Your task to perform on an android device: toggle sleep mode Image 0: 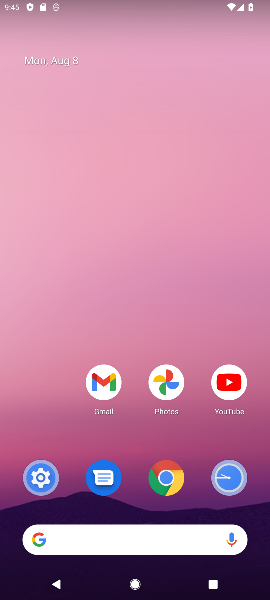
Step 0: drag from (154, 509) to (173, 57)
Your task to perform on an android device: toggle sleep mode Image 1: 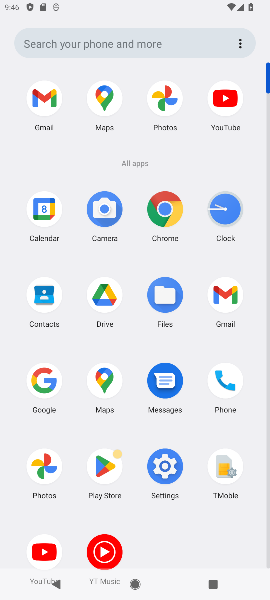
Step 1: click (165, 479)
Your task to perform on an android device: toggle sleep mode Image 2: 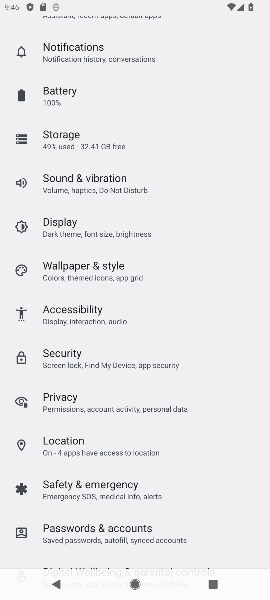
Step 2: task complete